Your task to perform on an android device: Go to display settings Image 0: 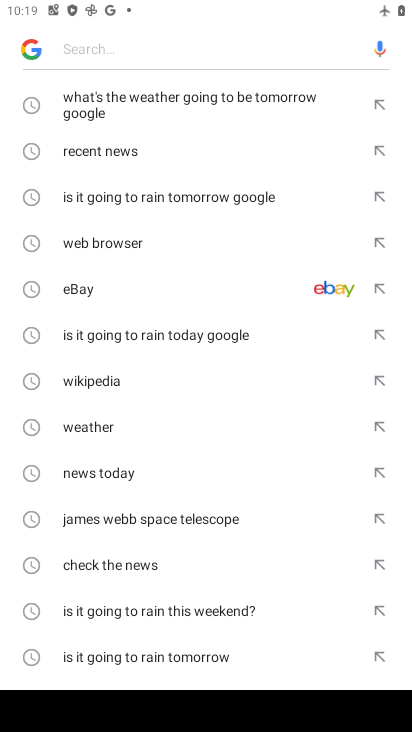
Step 0: press home button
Your task to perform on an android device: Go to display settings Image 1: 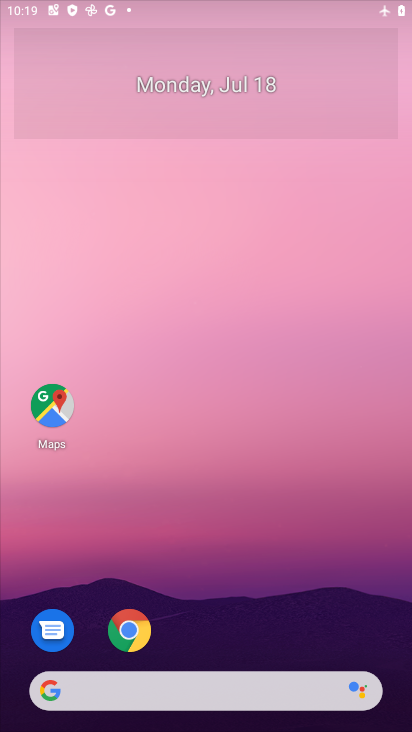
Step 1: drag from (390, 642) to (273, 5)
Your task to perform on an android device: Go to display settings Image 2: 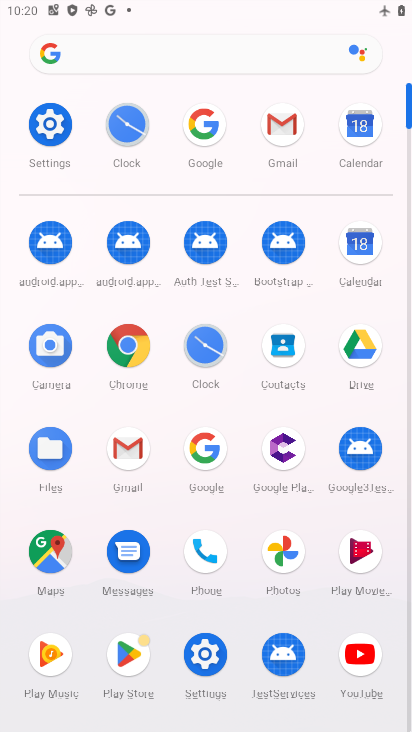
Step 2: click (205, 666)
Your task to perform on an android device: Go to display settings Image 3: 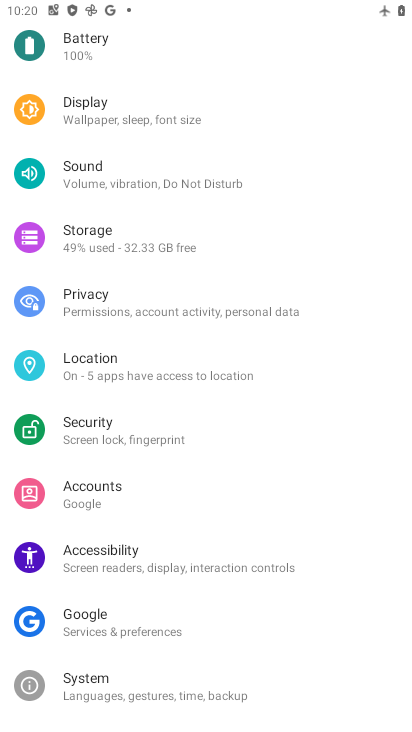
Step 3: click (119, 132)
Your task to perform on an android device: Go to display settings Image 4: 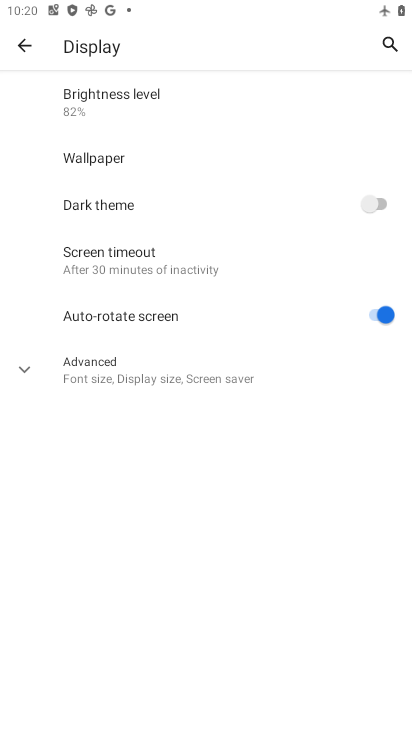
Step 4: task complete